Your task to perform on an android device: turn on priority inbox in the gmail app Image 0: 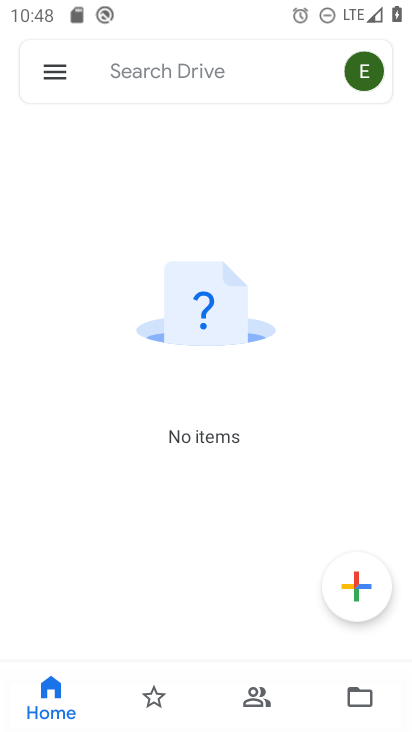
Step 0: press home button
Your task to perform on an android device: turn on priority inbox in the gmail app Image 1: 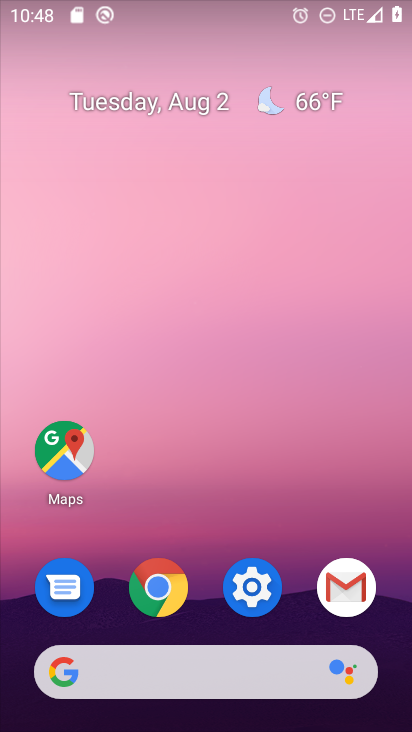
Step 1: click (333, 607)
Your task to perform on an android device: turn on priority inbox in the gmail app Image 2: 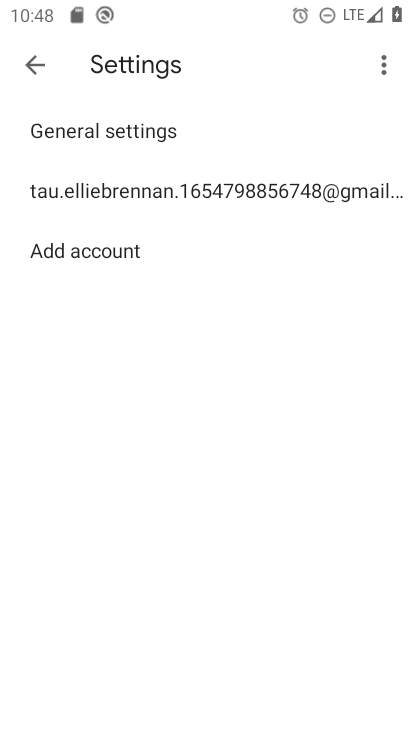
Step 2: click (96, 201)
Your task to perform on an android device: turn on priority inbox in the gmail app Image 3: 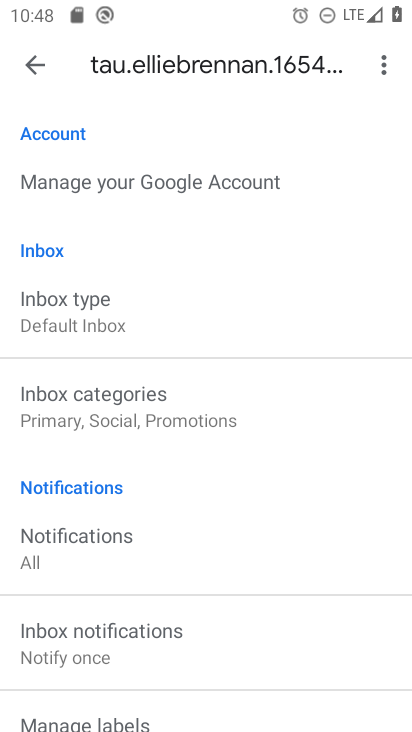
Step 3: click (75, 295)
Your task to perform on an android device: turn on priority inbox in the gmail app Image 4: 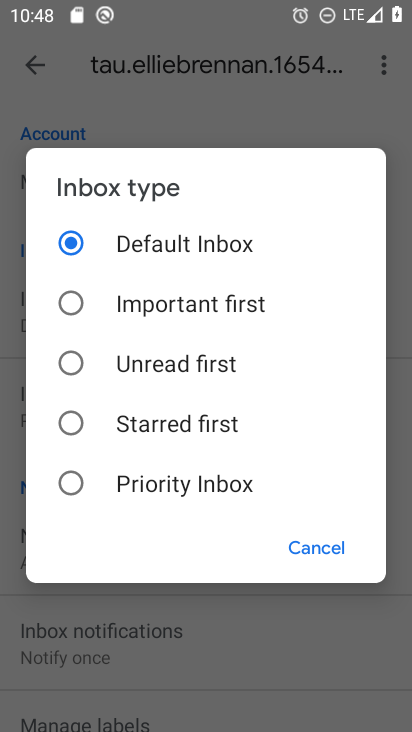
Step 4: click (137, 495)
Your task to perform on an android device: turn on priority inbox in the gmail app Image 5: 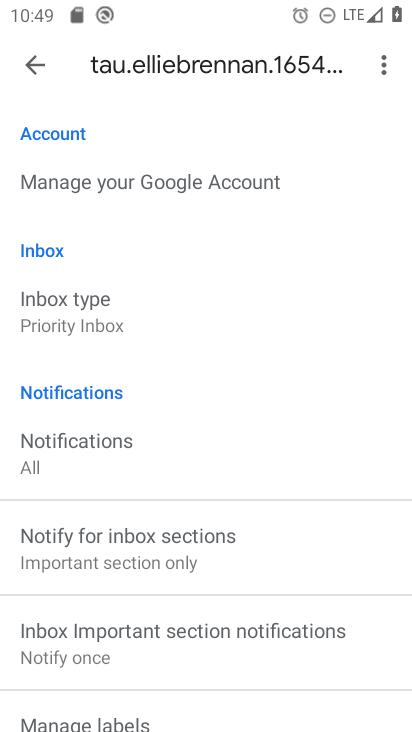
Step 5: task complete